Your task to perform on an android device: Search for the best rated soccer ball on AliExpress Image 0: 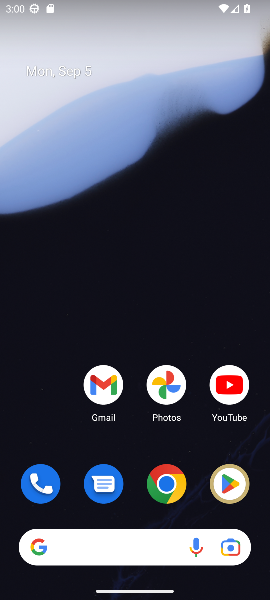
Step 0: click (165, 486)
Your task to perform on an android device: Search for the best rated soccer ball on AliExpress Image 1: 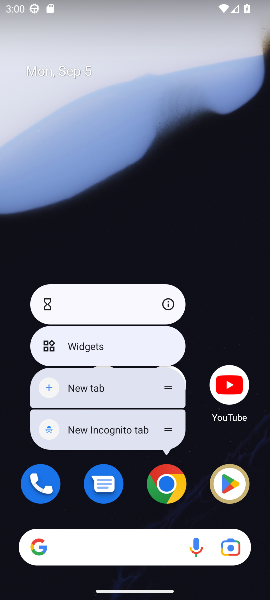
Step 1: click (171, 481)
Your task to perform on an android device: Search for the best rated soccer ball on AliExpress Image 2: 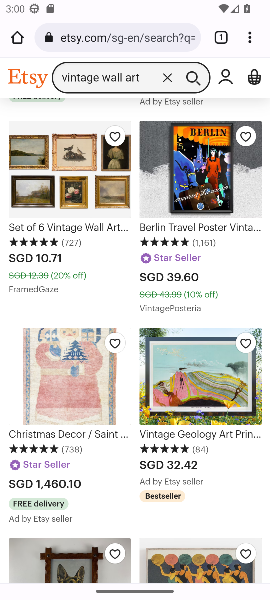
Step 2: click (152, 34)
Your task to perform on an android device: Search for the best rated soccer ball on AliExpress Image 3: 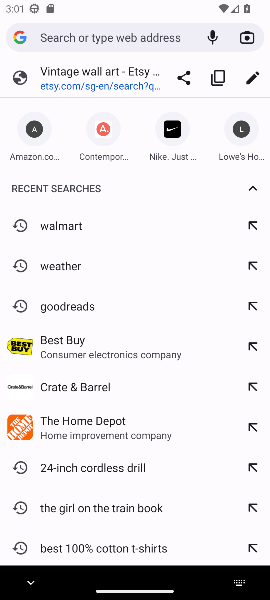
Step 3: press enter
Your task to perform on an android device: Search for the best rated soccer ball on AliExpress Image 4: 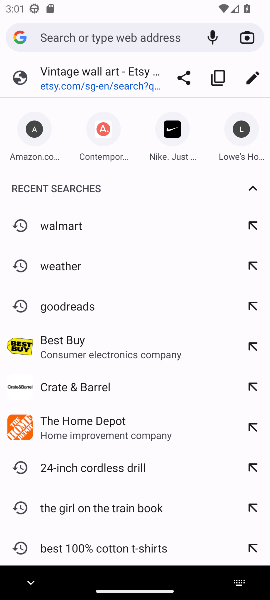
Step 4: type " AliExpress"
Your task to perform on an android device: Search for the best rated soccer ball on AliExpress Image 5: 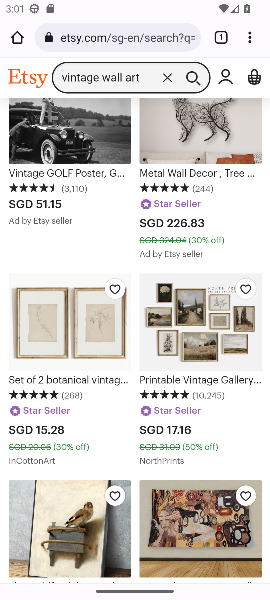
Step 5: click (64, 37)
Your task to perform on an android device: Search for the best rated soccer ball on AliExpress Image 6: 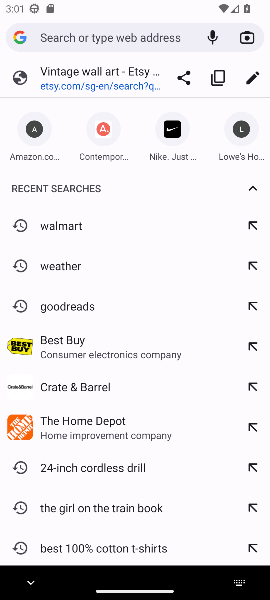
Step 6: type " AliExpress"
Your task to perform on an android device: Search for the best rated soccer ball on AliExpress Image 7: 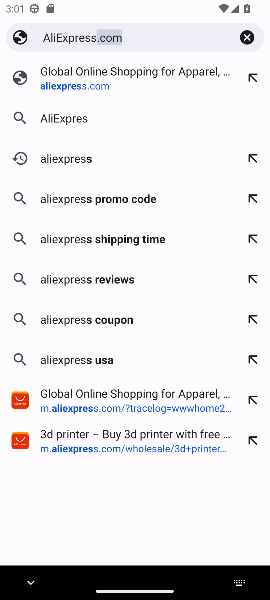
Step 7: press enter
Your task to perform on an android device: Search for the best rated soccer ball on AliExpress Image 8: 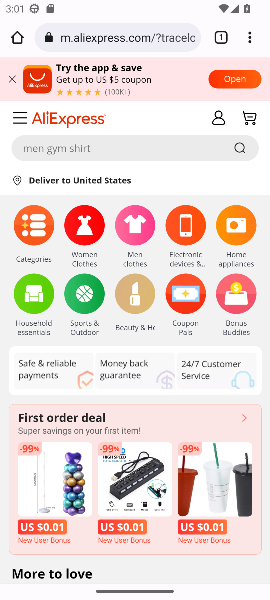
Step 8: click (81, 142)
Your task to perform on an android device: Search for the best rated soccer ball on AliExpress Image 9: 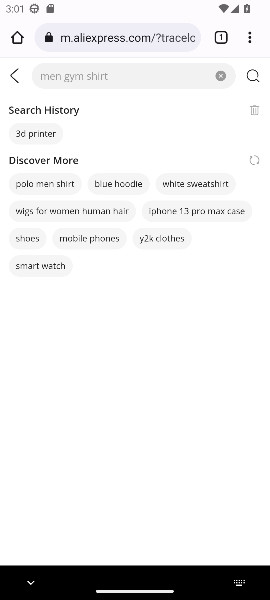
Step 9: type "soccer ball"
Your task to perform on an android device: Search for the best rated soccer ball on AliExpress Image 10: 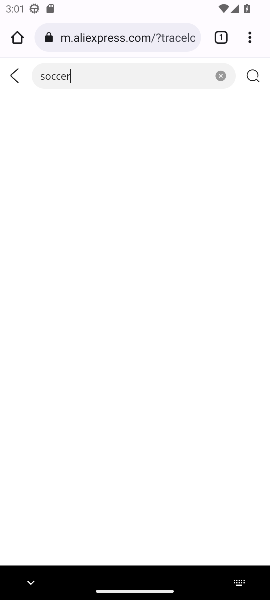
Step 10: press enter
Your task to perform on an android device: Search for the best rated soccer ball on AliExpress Image 11: 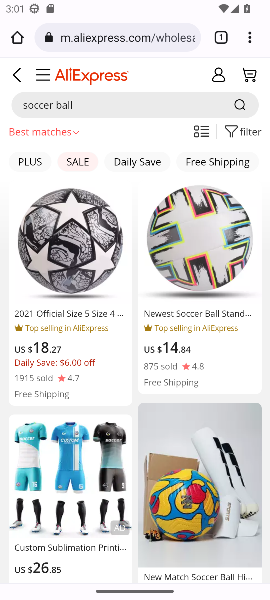
Step 11: drag from (176, 521) to (206, 269)
Your task to perform on an android device: Search for the best rated soccer ball on AliExpress Image 12: 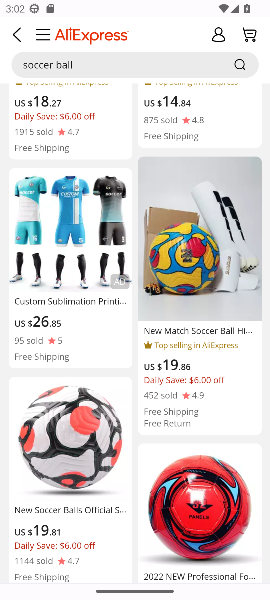
Step 12: drag from (124, 545) to (189, 342)
Your task to perform on an android device: Search for the best rated soccer ball on AliExpress Image 13: 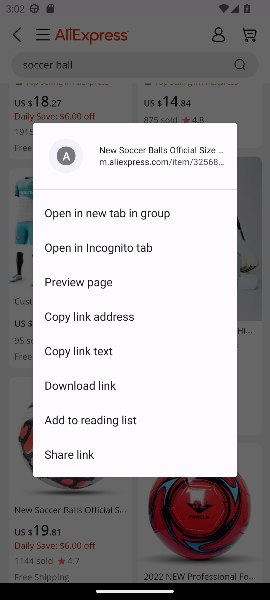
Step 13: click (258, 426)
Your task to perform on an android device: Search for the best rated soccer ball on AliExpress Image 14: 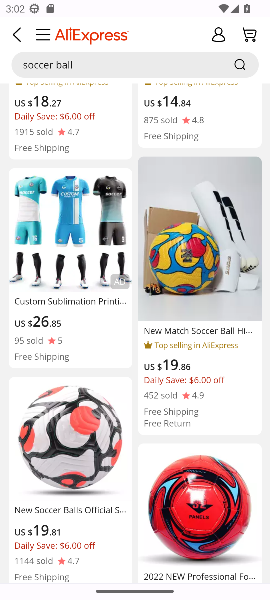
Step 14: task complete